Your task to perform on an android device: Check the news Image 0: 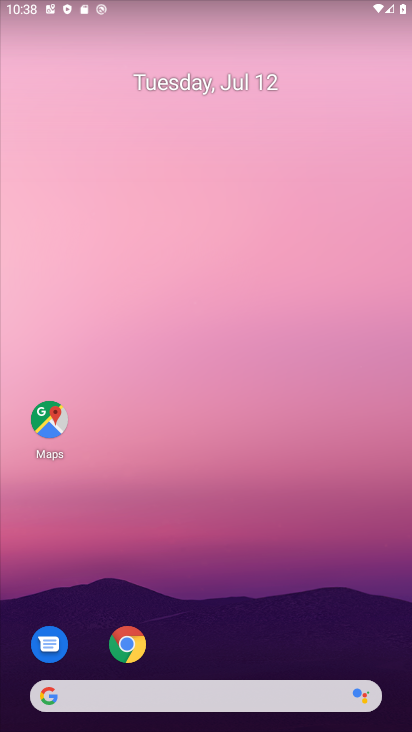
Step 0: drag from (14, 512) to (407, 477)
Your task to perform on an android device: Check the news Image 1: 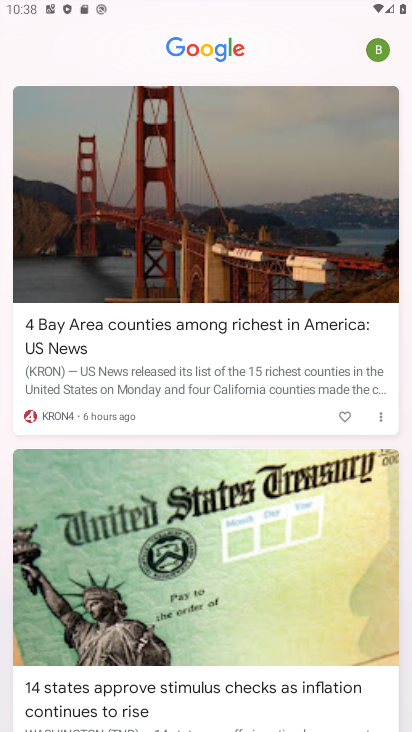
Step 1: task complete